Your task to perform on an android device: Go to battery settings Image 0: 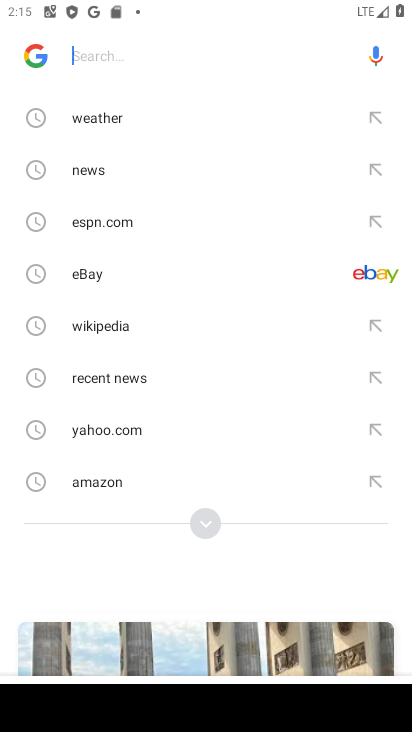
Step 0: press back button
Your task to perform on an android device: Go to battery settings Image 1: 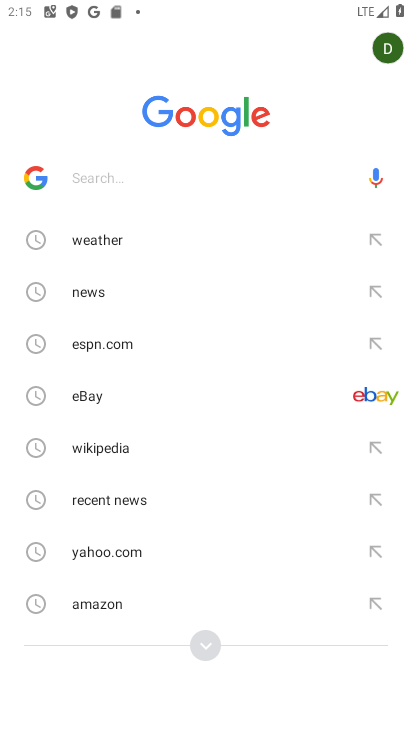
Step 1: press back button
Your task to perform on an android device: Go to battery settings Image 2: 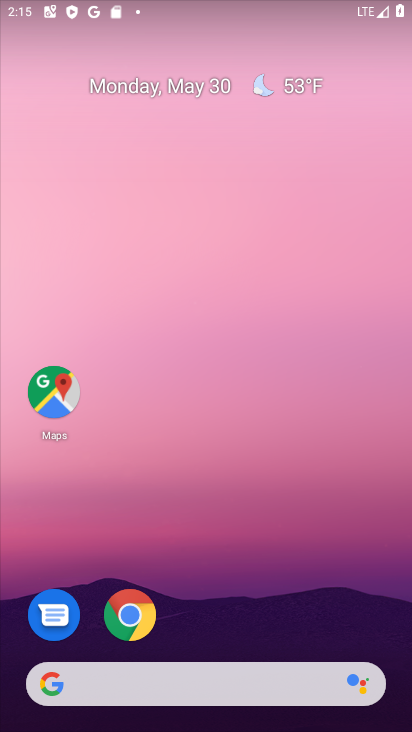
Step 2: drag from (339, 640) to (340, 105)
Your task to perform on an android device: Go to battery settings Image 3: 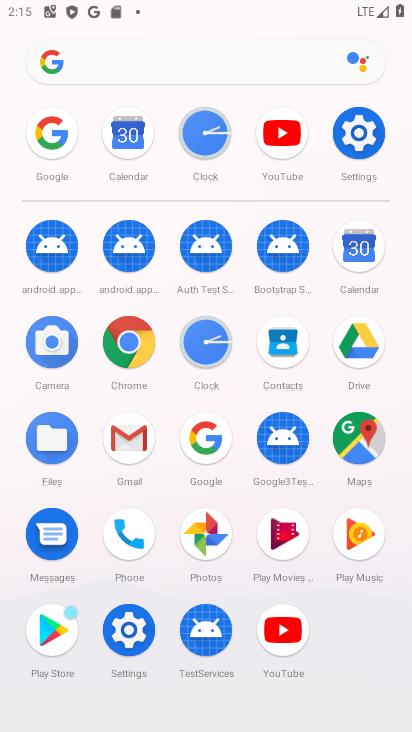
Step 3: click (365, 142)
Your task to perform on an android device: Go to battery settings Image 4: 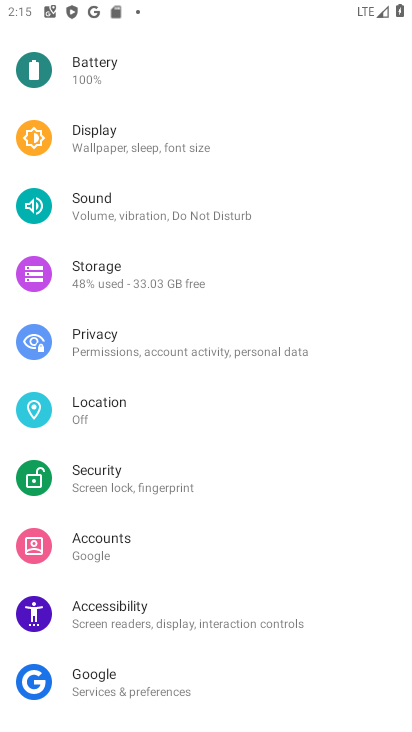
Step 4: click (78, 75)
Your task to perform on an android device: Go to battery settings Image 5: 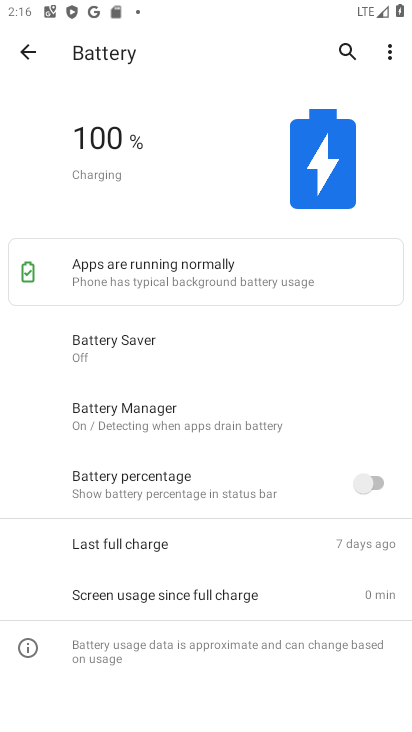
Step 5: task complete